Your task to perform on an android device: add a label to a message in the gmail app Image 0: 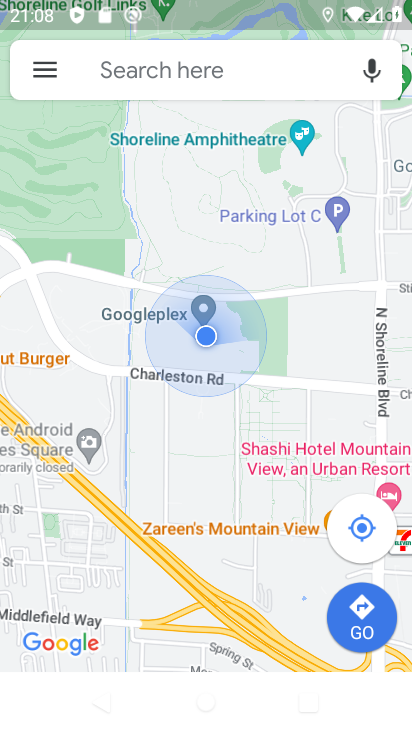
Step 0: press home button
Your task to perform on an android device: add a label to a message in the gmail app Image 1: 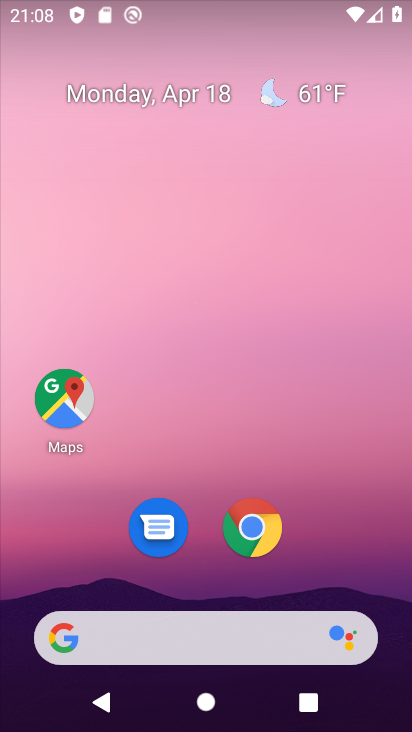
Step 1: click (277, 532)
Your task to perform on an android device: add a label to a message in the gmail app Image 2: 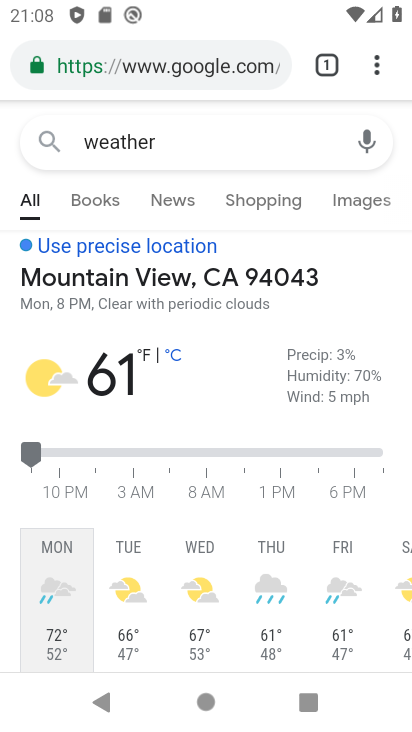
Step 2: press home button
Your task to perform on an android device: add a label to a message in the gmail app Image 3: 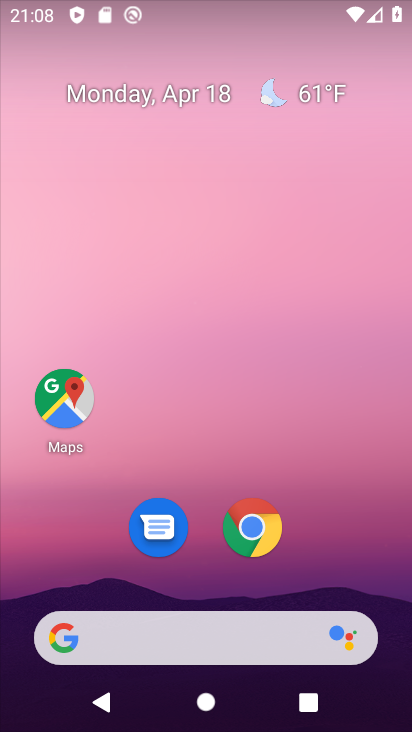
Step 3: drag from (195, 441) to (214, 71)
Your task to perform on an android device: add a label to a message in the gmail app Image 4: 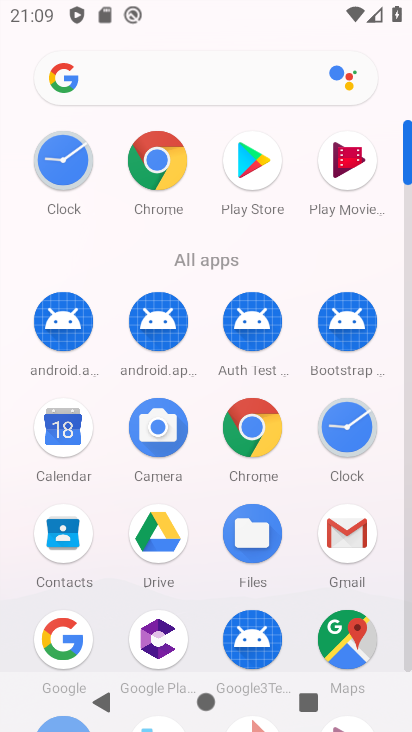
Step 4: click (349, 530)
Your task to perform on an android device: add a label to a message in the gmail app Image 5: 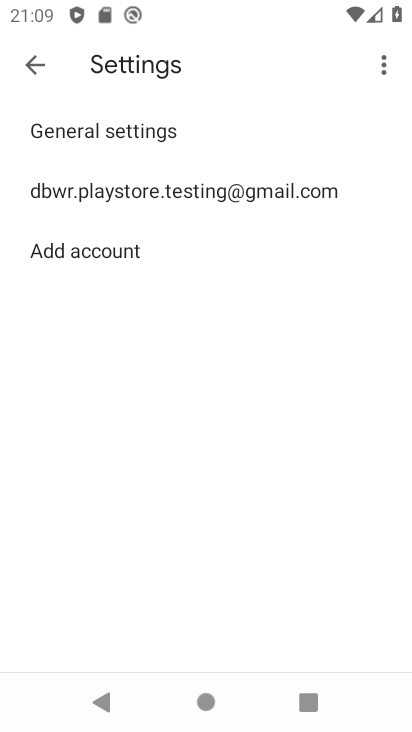
Step 5: click (211, 192)
Your task to perform on an android device: add a label to a message in the gmail app Image 6: 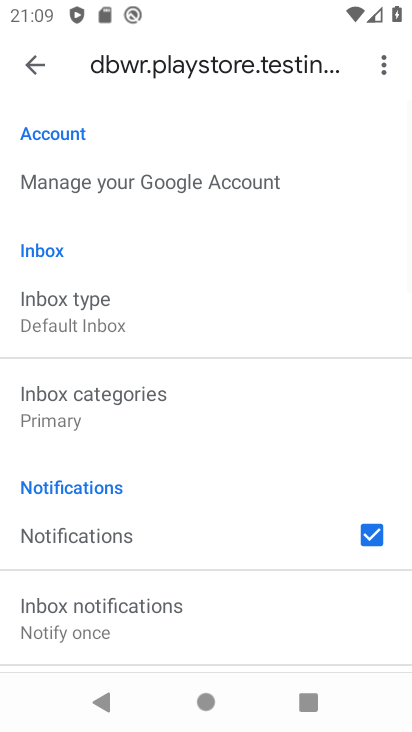
Step 6: click (33, 76)
Your task to perform on an android device: add a label to a message in the gmail app Image 7: 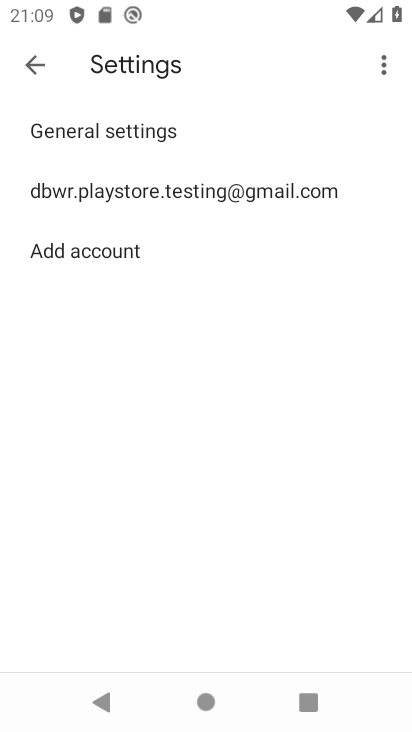
Step 7: click (33, 76)
Your task to perform on an android device: add a label to a message in the gmail app Image 8: 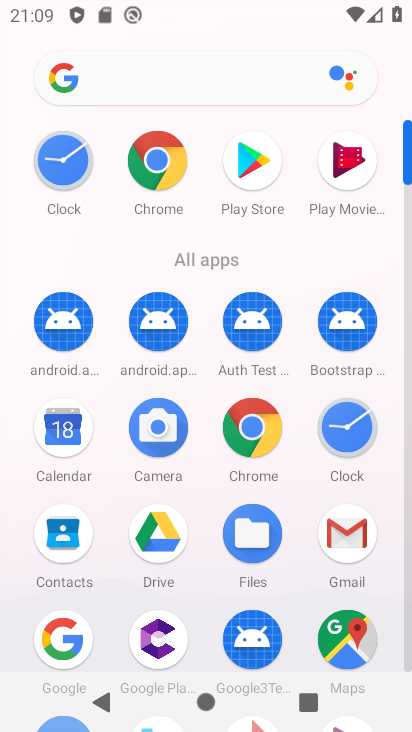
Step 8: click (371, 537)
Your task to perform on an android device: add a label to a message in the gmail app Image 9: 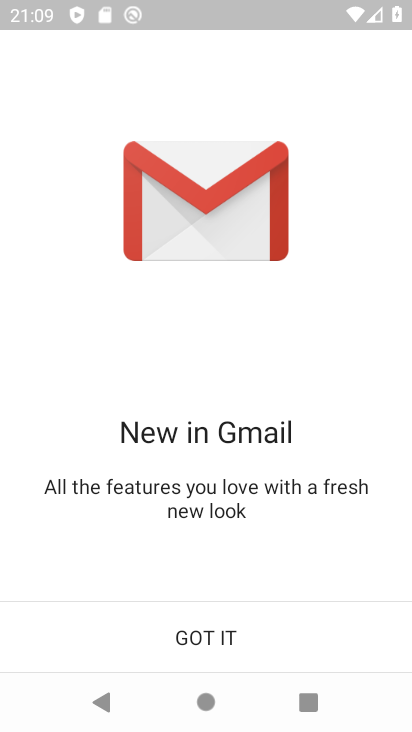
Step 9: click (175, 642)
Your task to perform on an android device: add a label to a message in the gmail app Image 10: 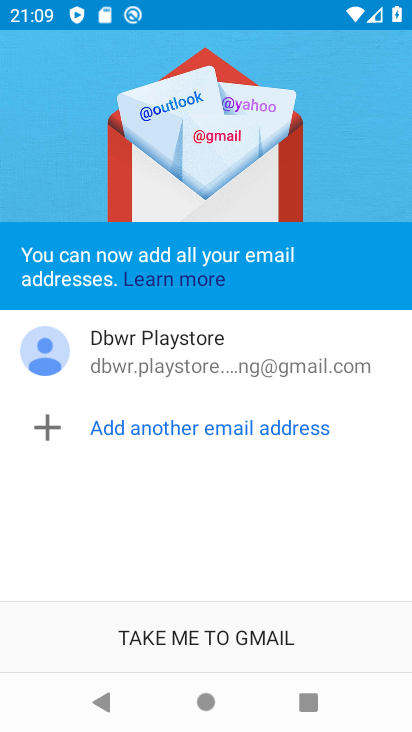
Step 10: click (175, 642)
Your task to perform on an android device: add a label to a message in the gmail app Image 11: 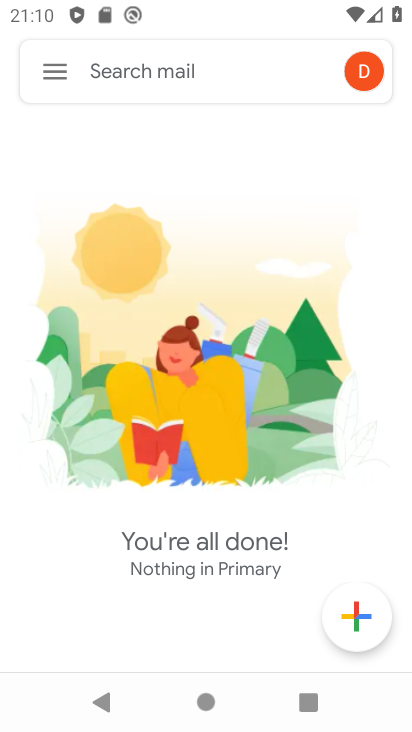
Step 11: click (65, 65)
Your task to perform on an android device: add a label to a message in the gmail app Image 12: 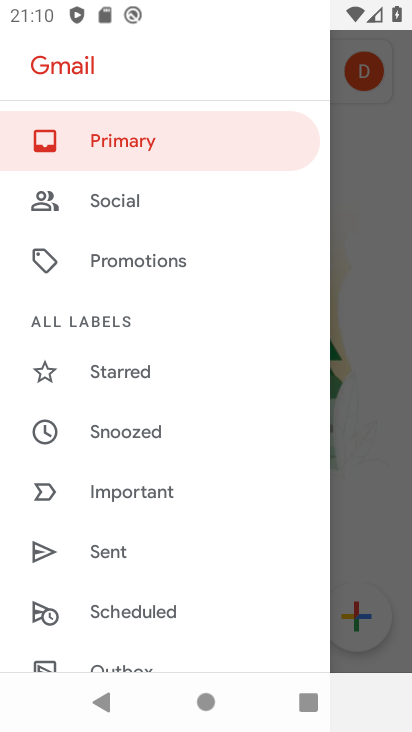
Step 12: click (353, 160)
Your task to perform on an android device: add a label to a message in the gmail app Image 13: 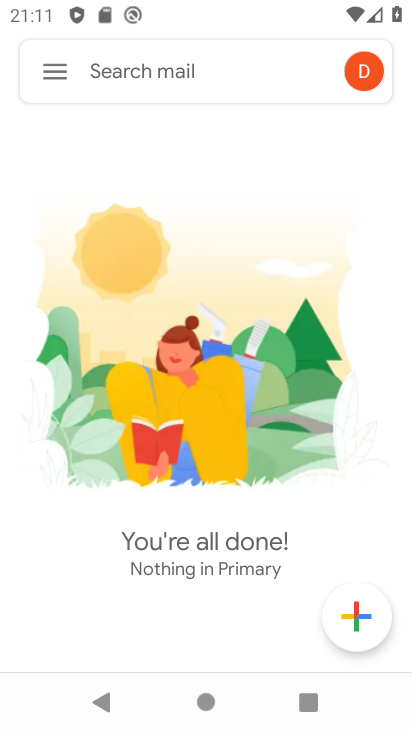
Step 13: task complete